Your task to perform on an android device: Go to Google Image 0: 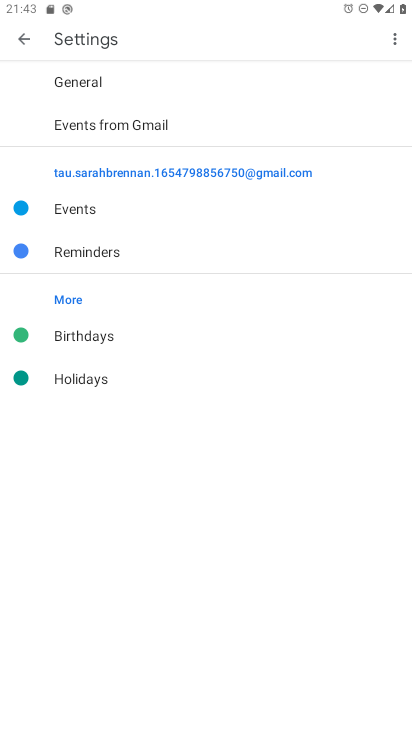
Step 0: press home button
Your task to perform on an android device: Go to Google Image 1: 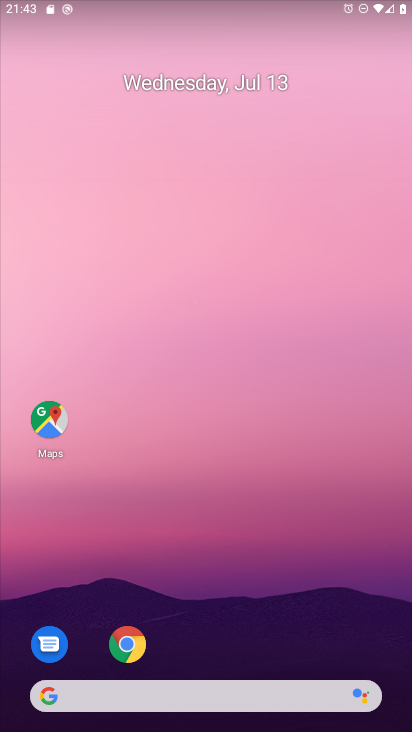
Step 1: drag from (258, 532) to (263, 116)
Your task to perform on an android device: Go to Google Image 2: 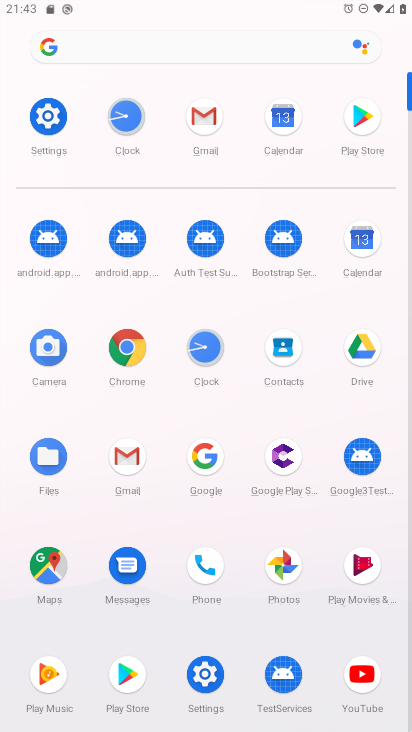
Step 2: click (199, 452)
Your task to perform on an android device: Go to Google Image 3: 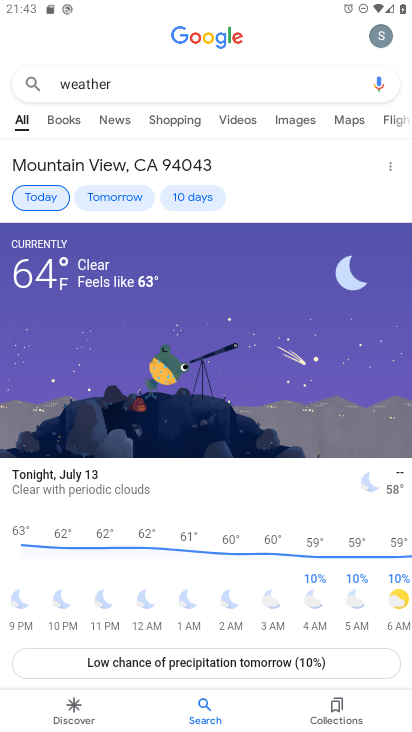
Step 3: click (197, 34)
Your task to perform on an android device: Go to Google Image 4: 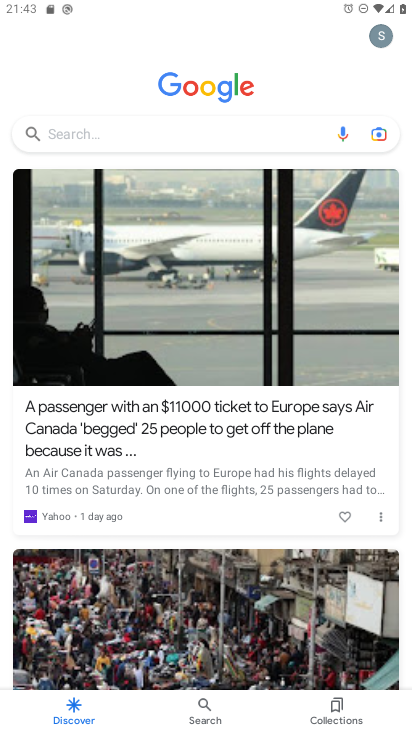
Step 4: task complete